Your task to perform on an android device: turn vacation reply on in the gmail app Image 0: 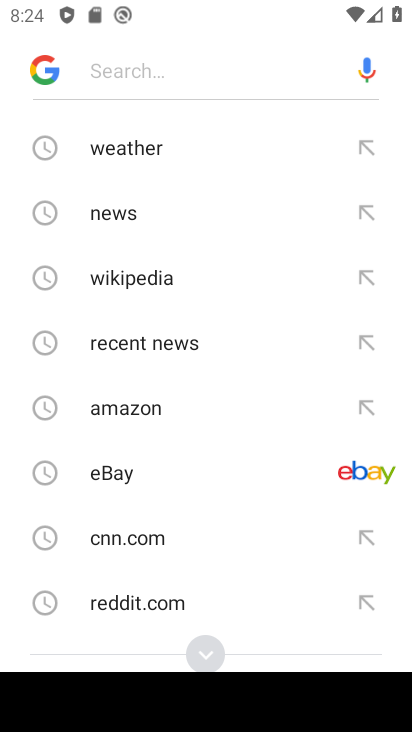
Step 0: press home button
Your task to perform on an android device: turn vacation reply on in the gmail app Image 1: 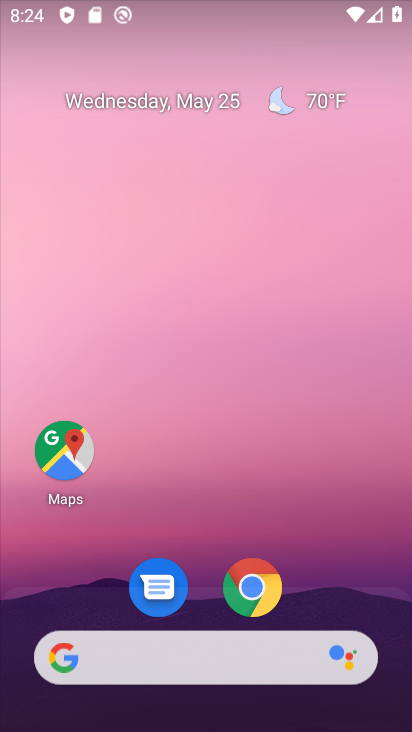
Step 1: drag from (208, 621) to (171, 14)
Your task to perform on an android device: turn vacation reply on in the gmail app Image 2: 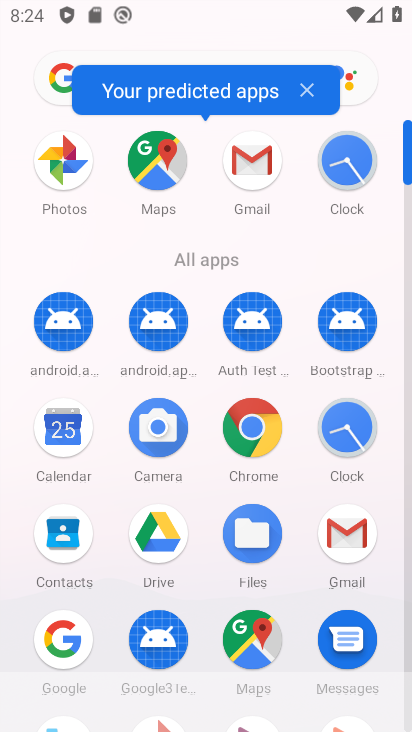
Step 2: click (261, 195)
Your task to perform on an android device: turn vacation reply on in the gmail app Image 3: 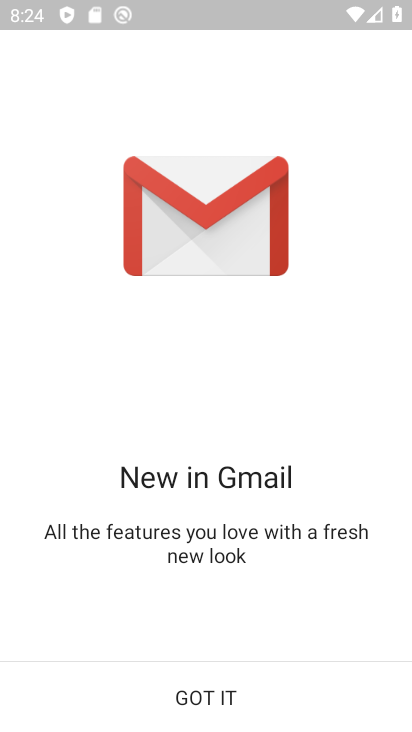
Step 3: click (180, 690)
Your task to perform on an android device: turn vacation reply on in the gmail app Image 4: 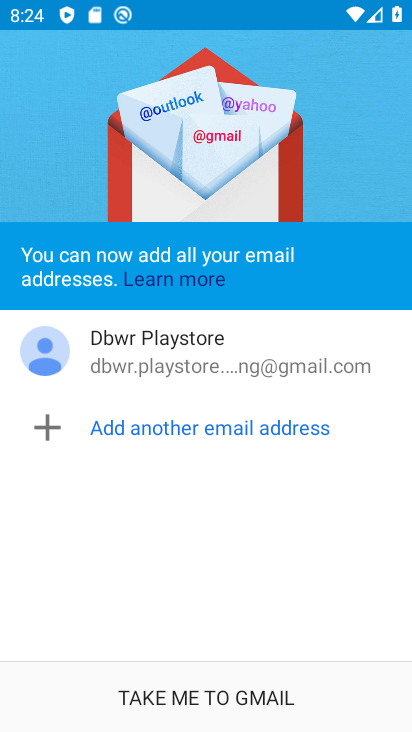
Step 4: click (168, 695)
Your task to perform on an android device: turn vacation reply on in the gmail app Image 5: 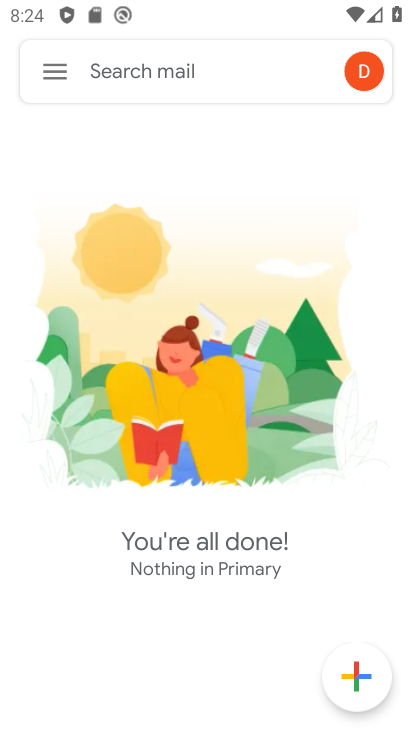
Step 5: click (40, 72)
Your task to perform on an android device: turn vacation reply on in the gmail app Image 6: 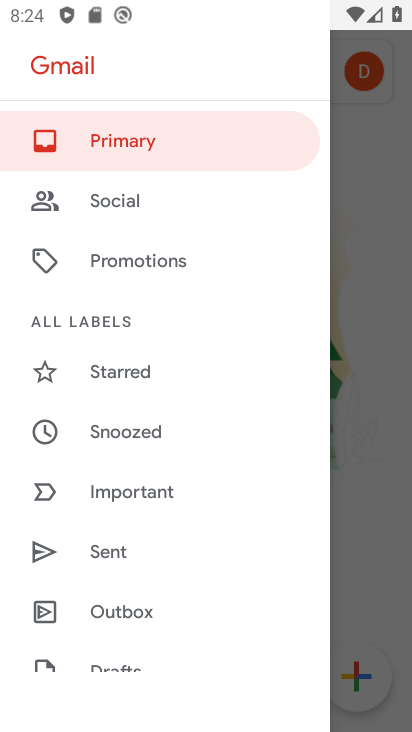
Step 6: drag from (156, 551) to (224, 88)
Your task to perform on an android device: turn vacation reply on in the gmail app Image 7: 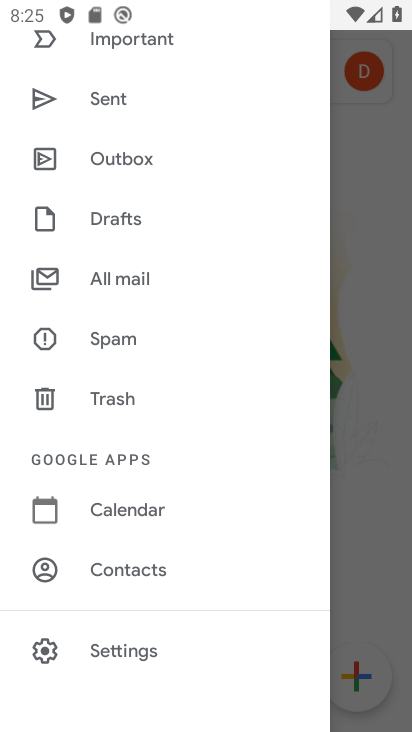
Step 7: drag from (147, 622) to (252, 130)
Your task to perform on an android device: turn vacation reply on in the gmail app Image 8: 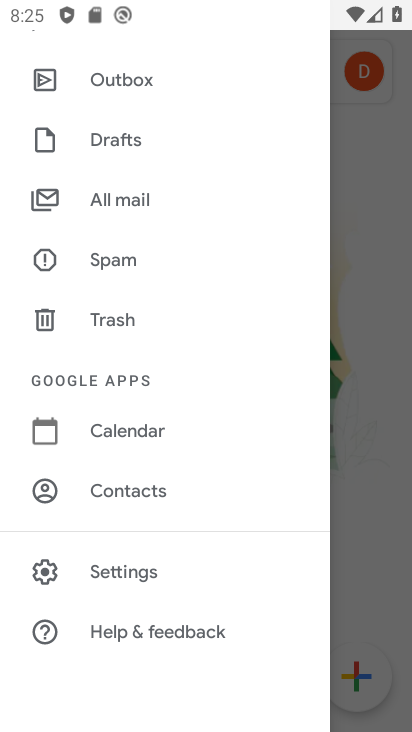
Step 8: click (138, 580)
Your task to perform on an android device: turn vacation reply on in the gmail app Image 9: 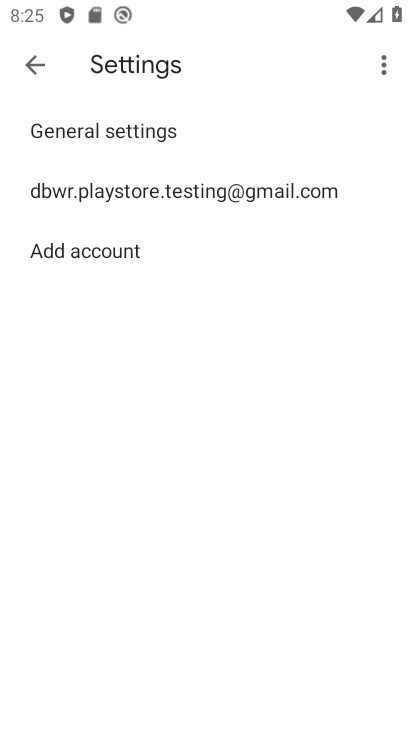
Step 9: click (219, 190)
Your task to perform on an android device: turn vacation reply on in the gmail app Image 10: 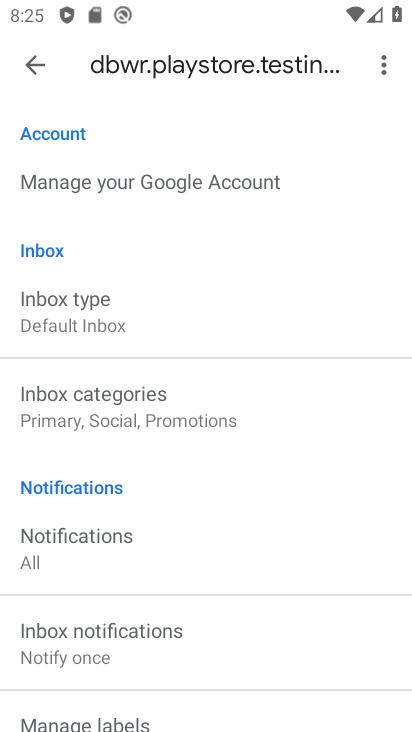
Step 10: drag from (135, 585) to (159, 200)
Your task to perform on an android device: turn vacation reply on in the gmail app Image 11: 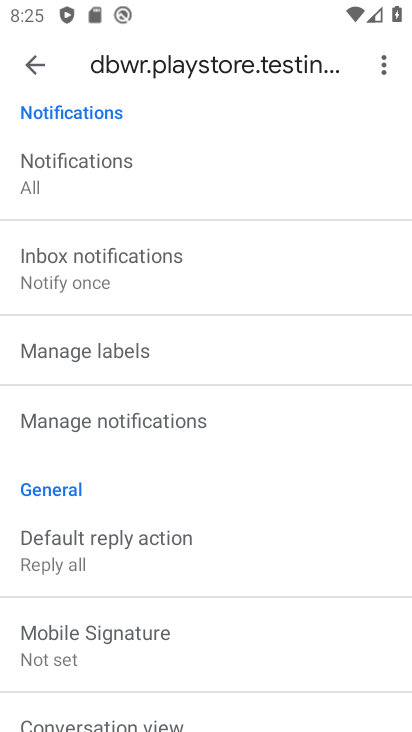
Step 11: drag from (122, 669) to (170, 243)
Your task to perform on an android device: turn vacation reply on in the gmail app Image 12: 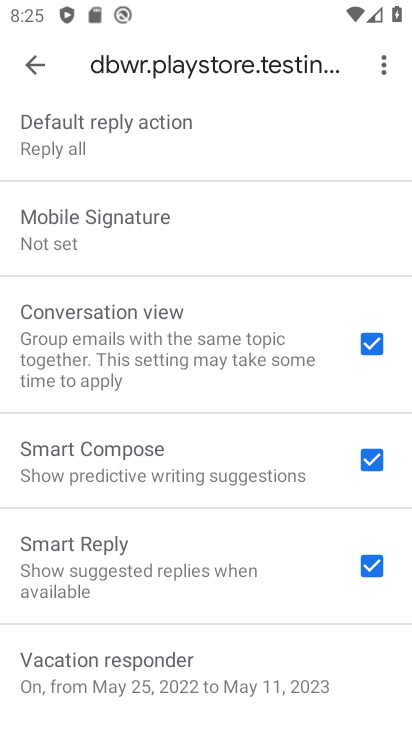
Step 12: click (151, 672)
Your task to perform on an android device: turn vacation reply on in the gmail app Image 13: 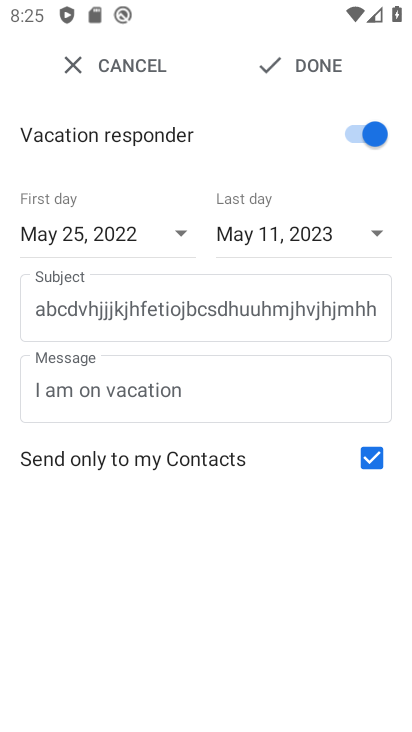
Step 13: task complete